Your task to perform on an android device: When is my next appointment? Image 0: 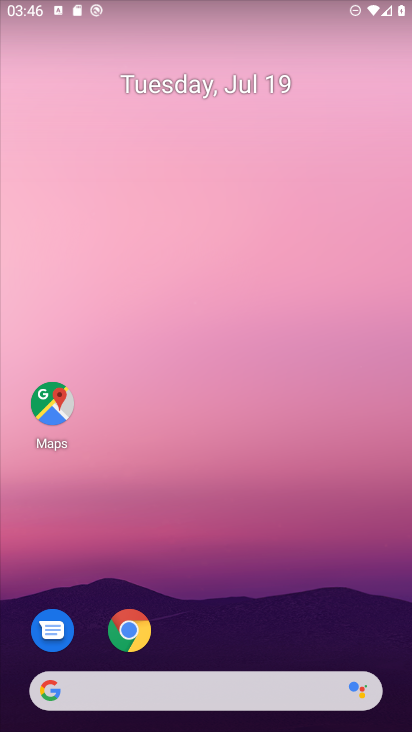
Step 0: drag from (374, 630) to (341, 146)
Your task to perform on an android device: When is my next appointment? Image 1: 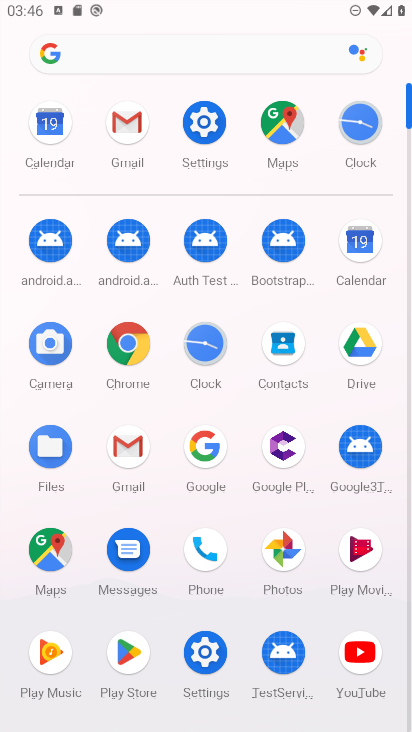
Step 1: click (359, 237)
Your task to perform on an android device: When is my next appointment? Image 2: 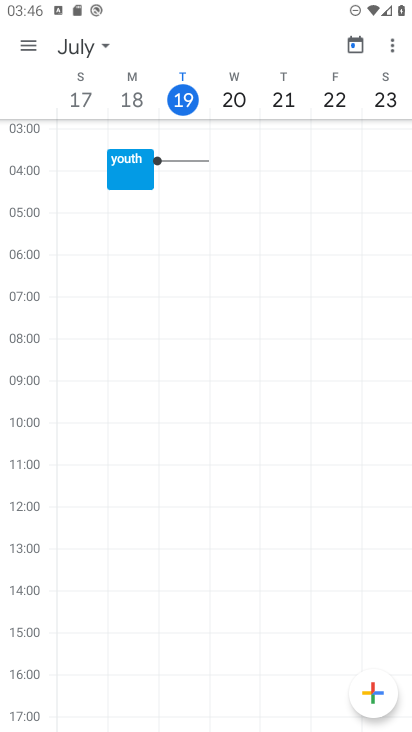
Step 2: click (28, 46)
Your task to perform on an android device: When is my next appointment? Image 3: 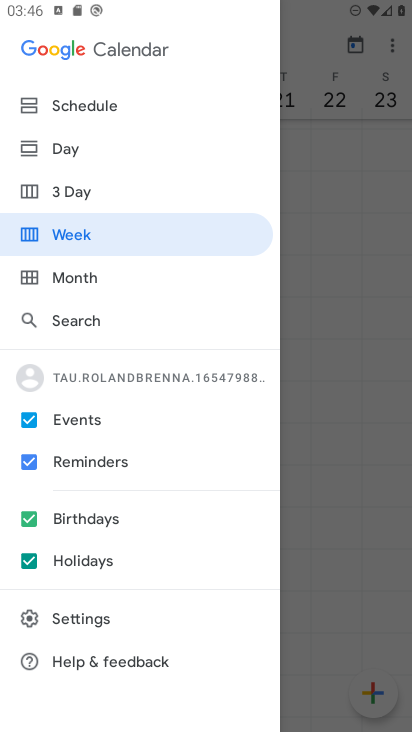
Step 3: click (77, 101)
Your task to perform on an android device: When is my next appointment? Image 4: 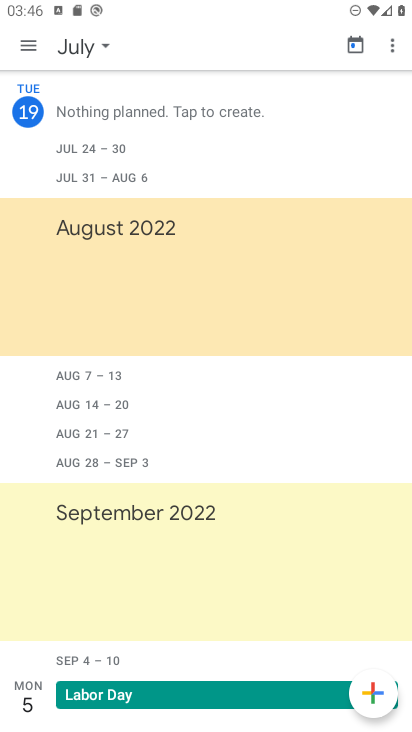
Step 4: task complete